Your task to perform on an android device: Open Google Chrome Image 0: 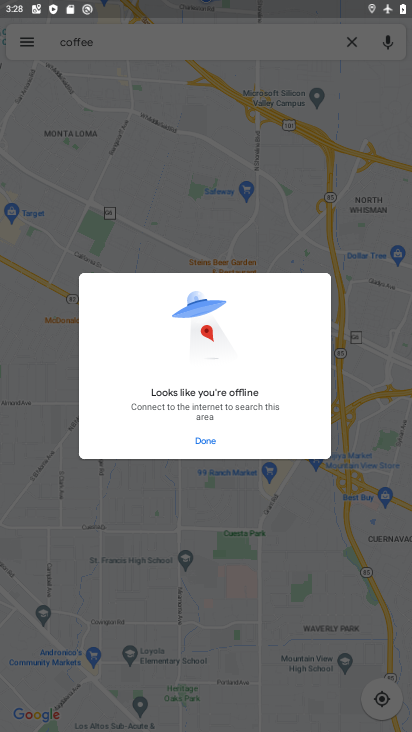
Step 0: press home button
Your task to perform on an android device: Open Google Chrome Image 1: 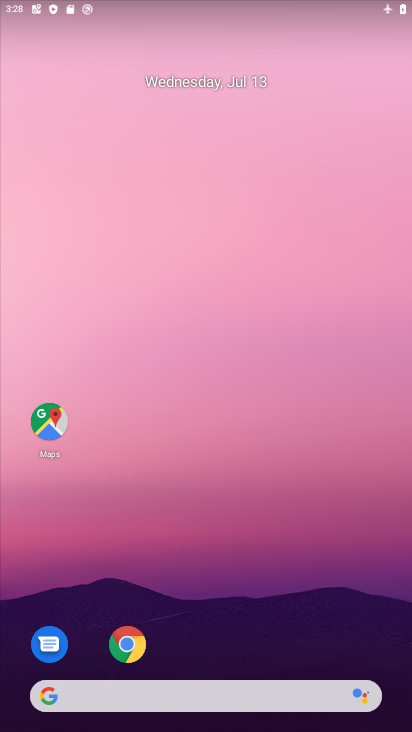
Step 1: click (131, 645)
Your task to perform on an android device: Open Google Chrome Image 2: 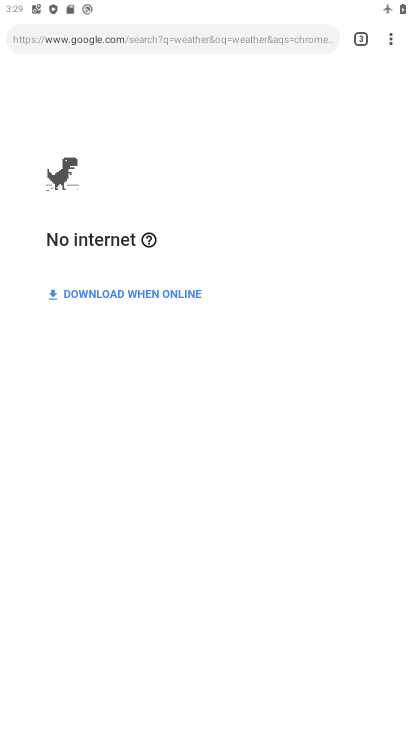
Step 2: task complete